Your task to perform on an android device: Search for seafood restaurants on Google Maps Image 0: 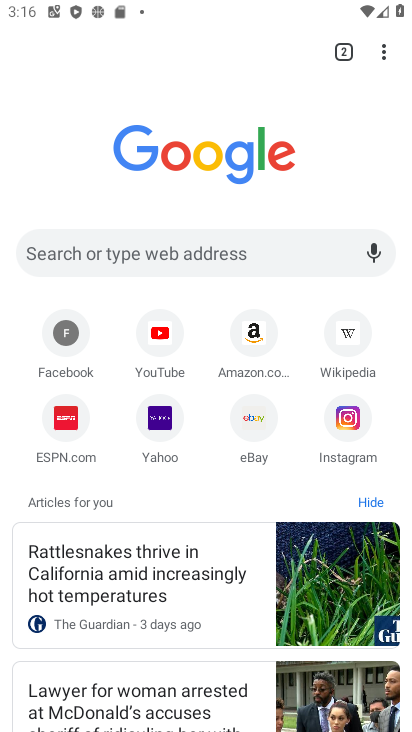
Step 0: press home button
Your task to perform on an android device: Search for seafood restaurants on Google Maps Image 1: 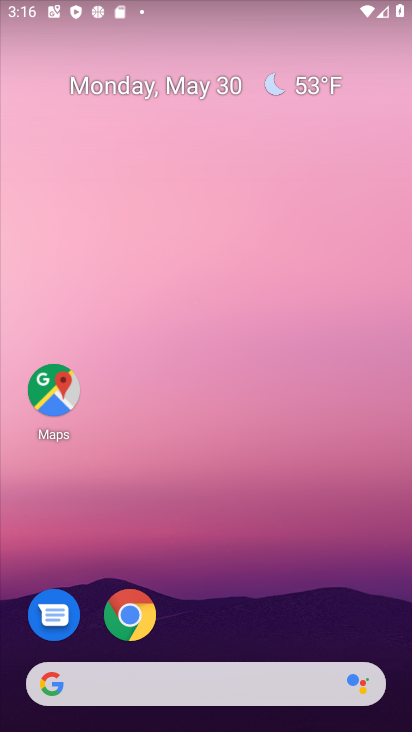
Step 1: click (57, 395)
Your task to perform on an android device: Search for seafood restaurants on Google Maps Image 2: 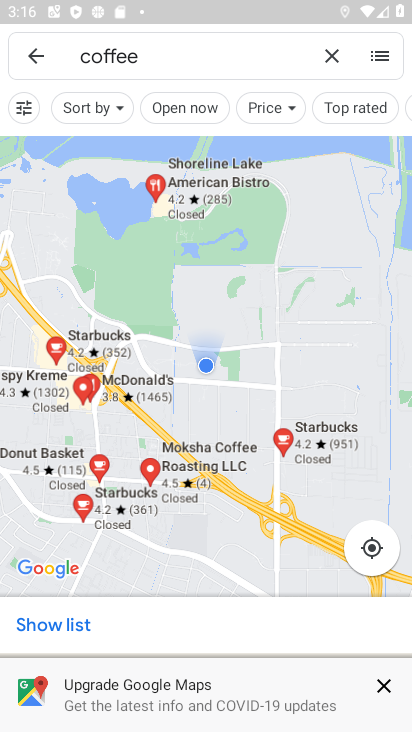
Step 2: click (243, 58)
Your task to perform on an android device: Search for seafood restaurants on Google Maps Image 3: 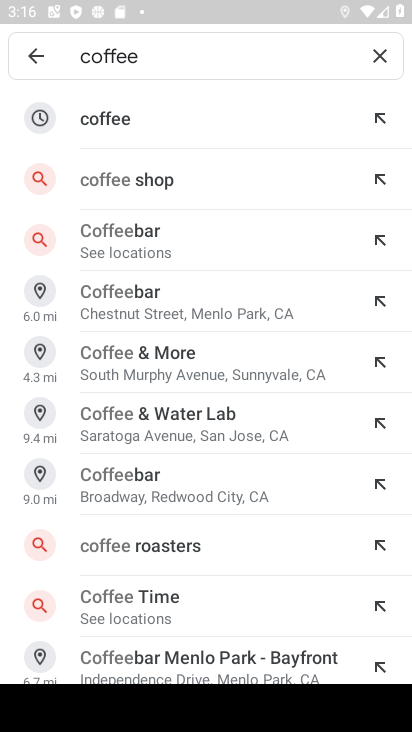
Step 3: click (375, 45)
Your task to perform on an android device: Search for seafood restaurants on Google Maps Image 4: 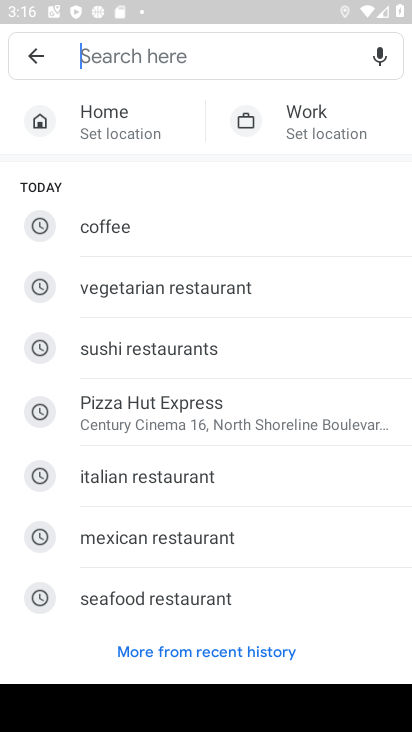
Step 4: click (106, 600)
Your task to perform on an android device: Search for seafood restaurants on Google Maps Image 5: 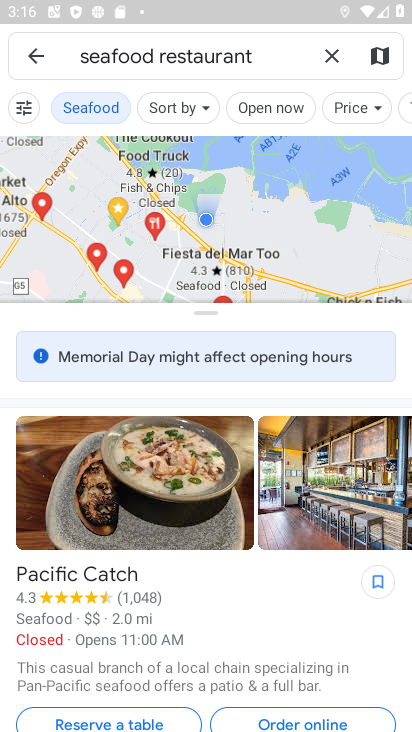
Step 5: click (340, 385)
Your task to perform on an android device: Search for seafood restaurants on Google Maps Image 6: 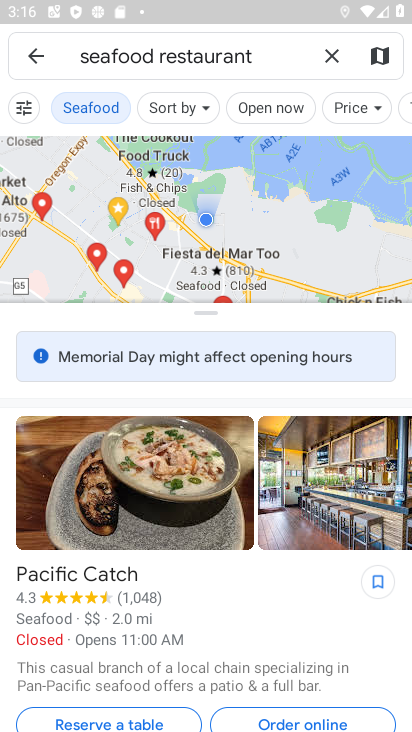
Step 6: task complete